Your task to perform on an android device: uninstall "Pinterest" Image 0: 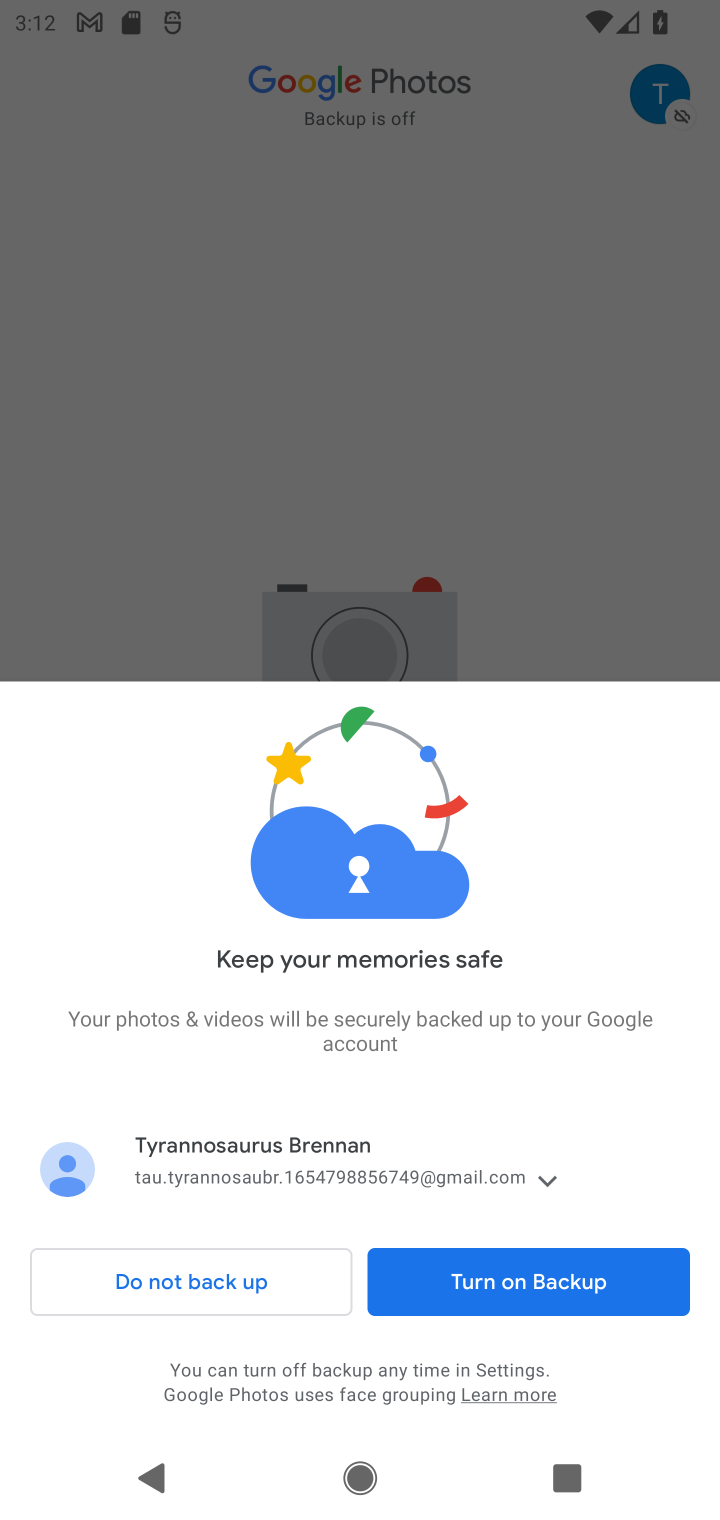
Step 0: press home button
Your task to perform on an android device: uninstall "Pinterest" Image 1: 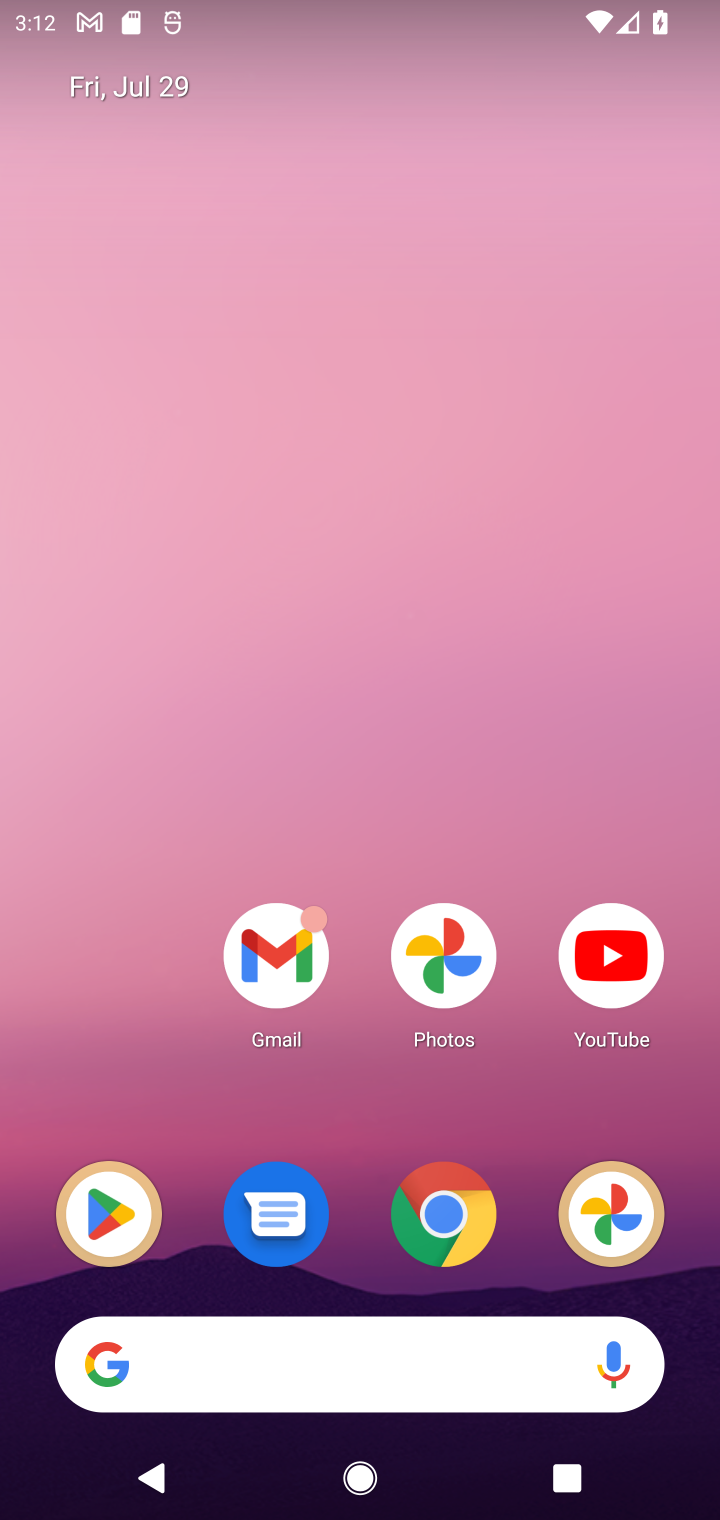
Step 1: click (116, 1200)
Your task to perform on an android device: uninstall "Pinterest" Image 2: 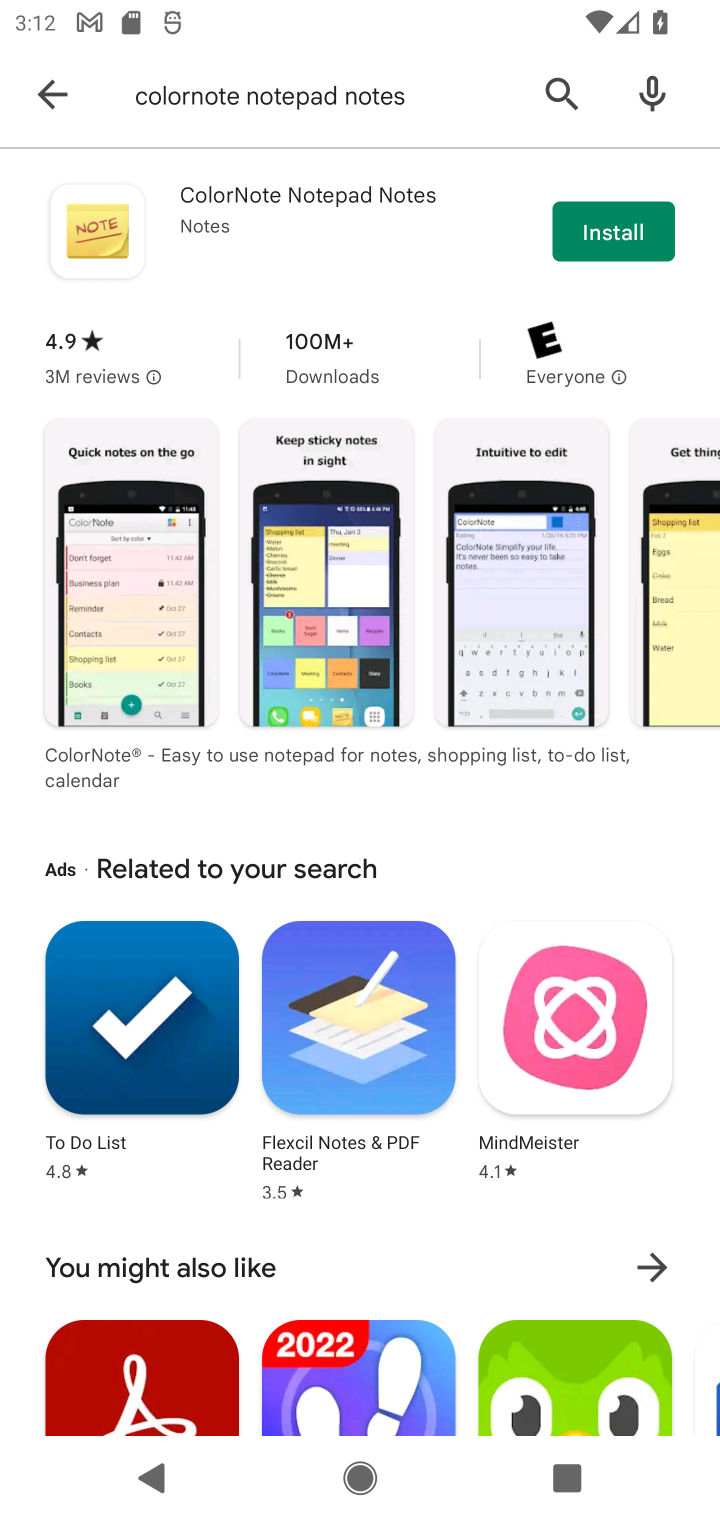
Step 2: click (551, 81)
Your task to perform on an android device: uninstall "Pinterest" Image 3: 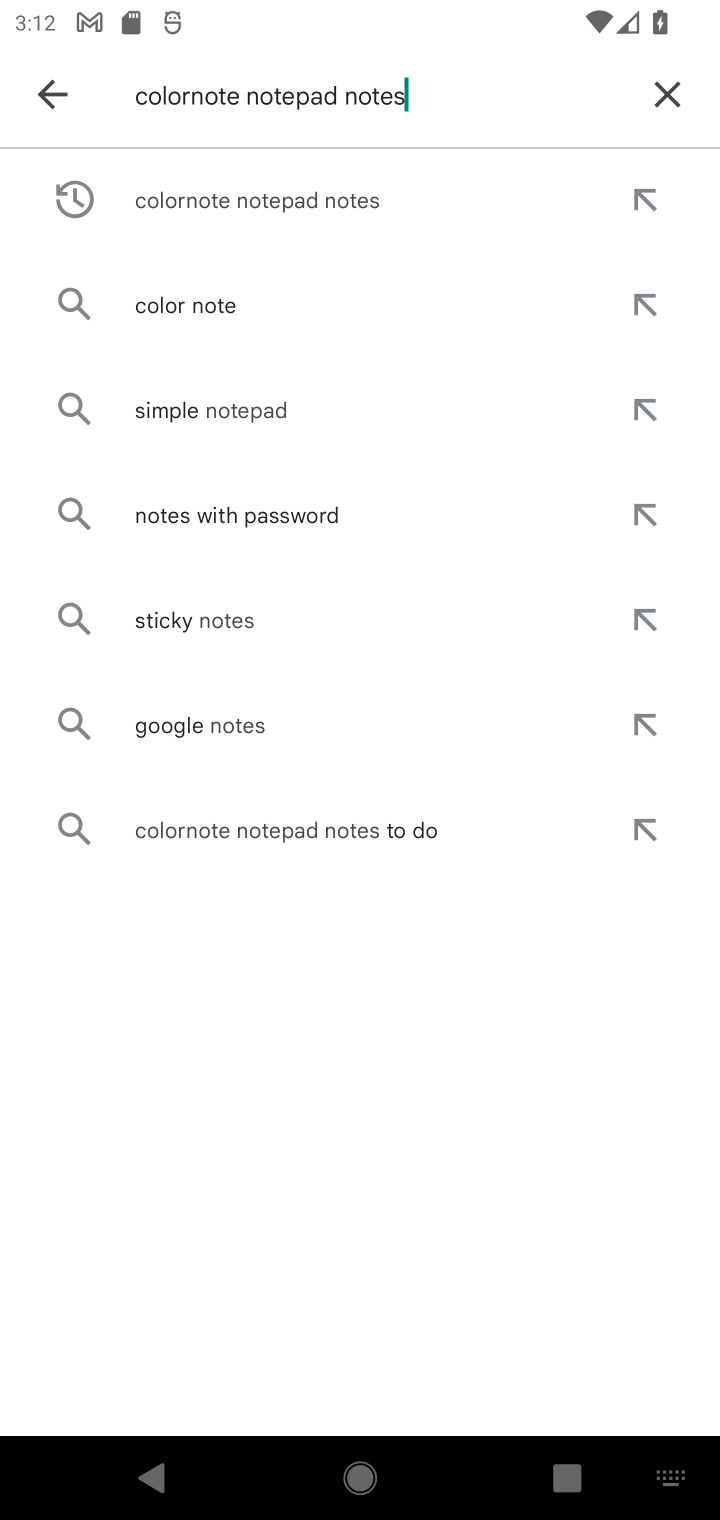
Step 3: click (671, 96)
Your task to perform on an android device: uninstall "Pinterest" Image 4: 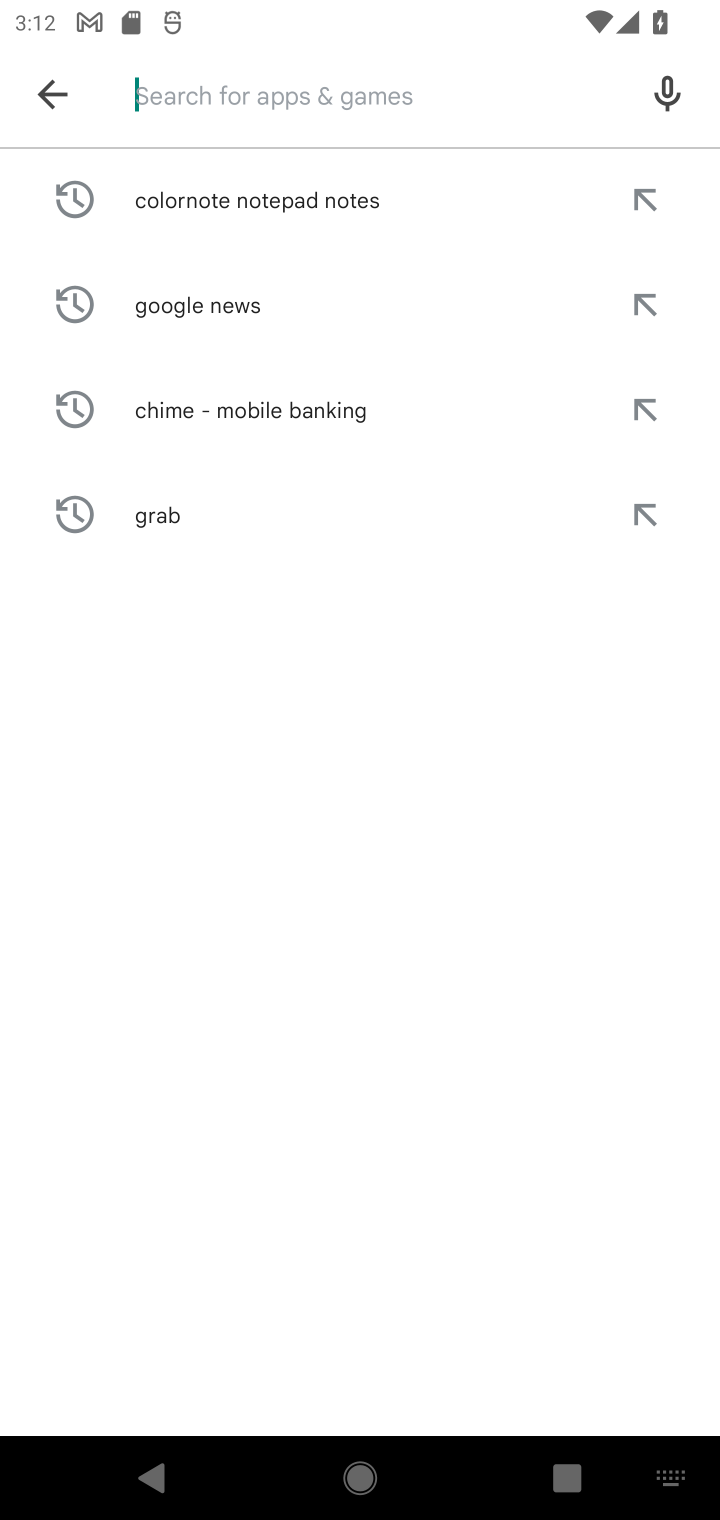
Step 4: type "Pinterest"
Your task to perform on an android device: uninstall "Pinterest" Image 5: 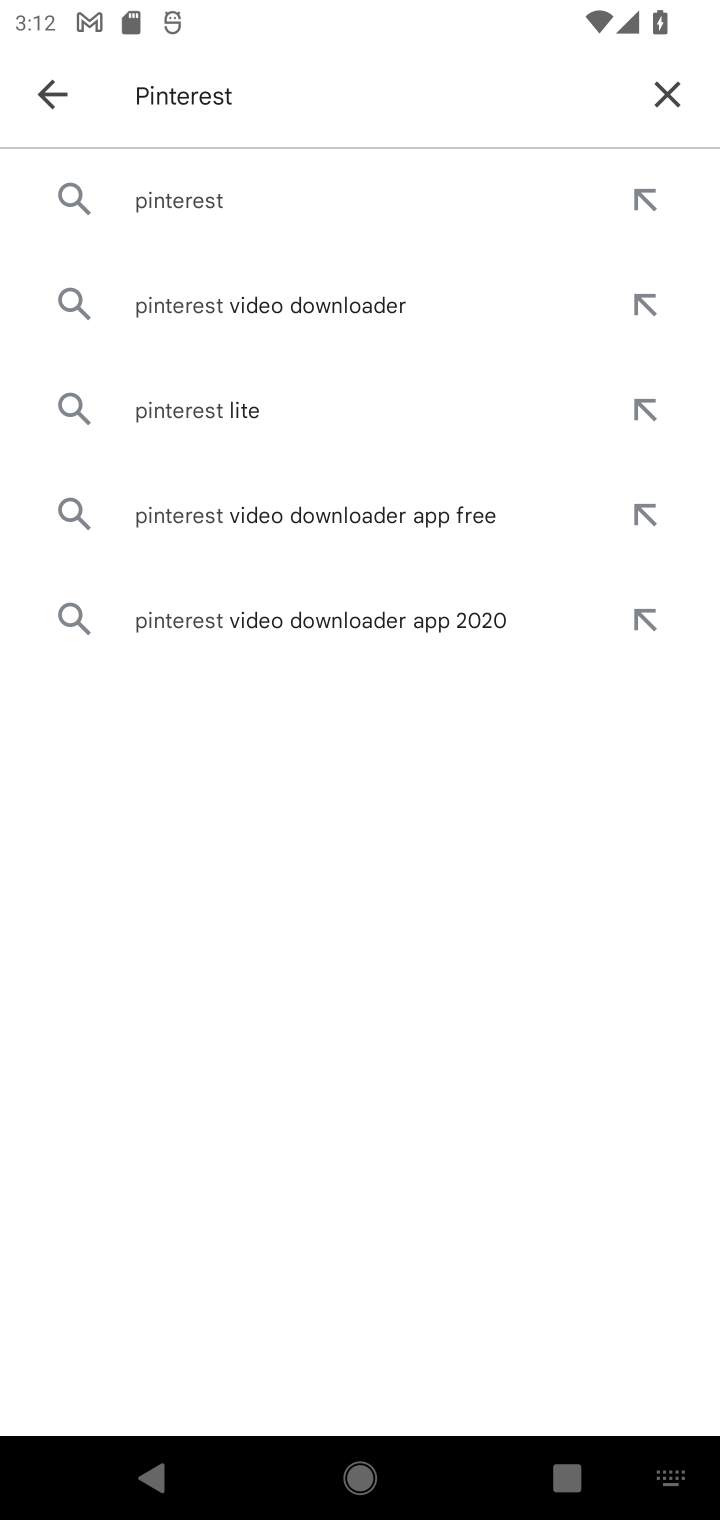
Step 5: click (392, 185)
Your task to perform on an android device: uninstall "Pinterest" Image 6: 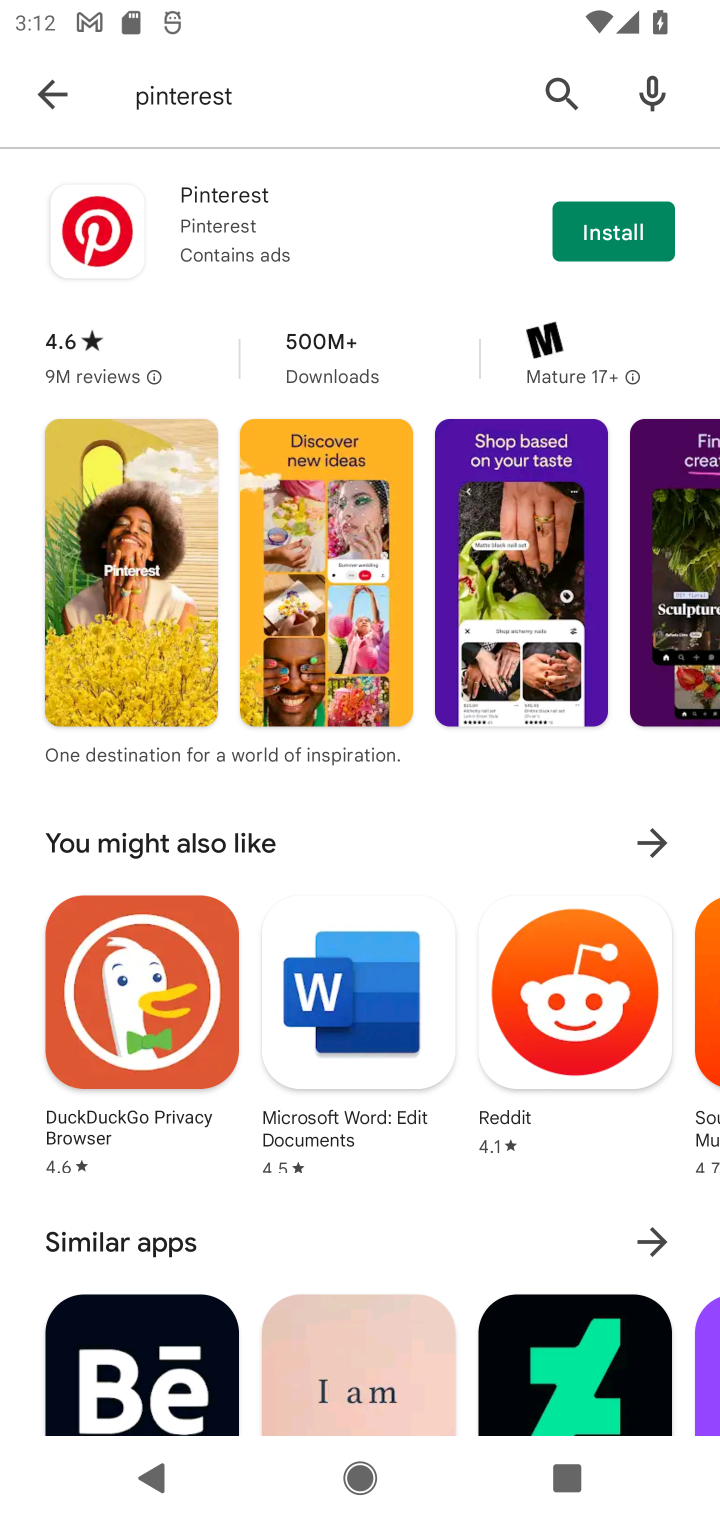
Step 6: task complete